Your task to perform on an android device: open the mobile data screen to see how much data has been used Image 0: 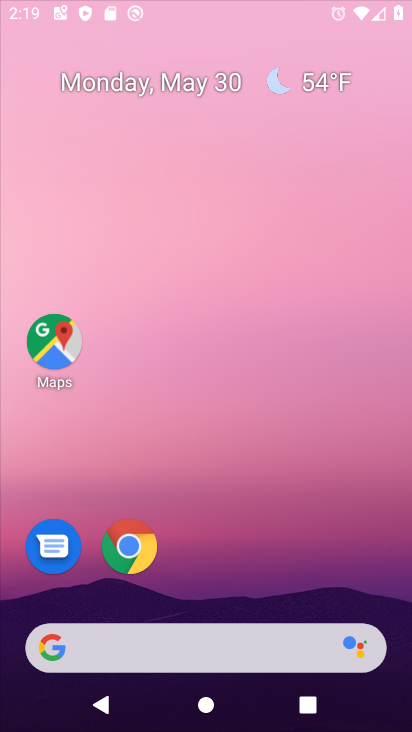
Step 0: press home button
Your task to perform on an android device: open the mobile data screen to see how much data has been used Image 1: 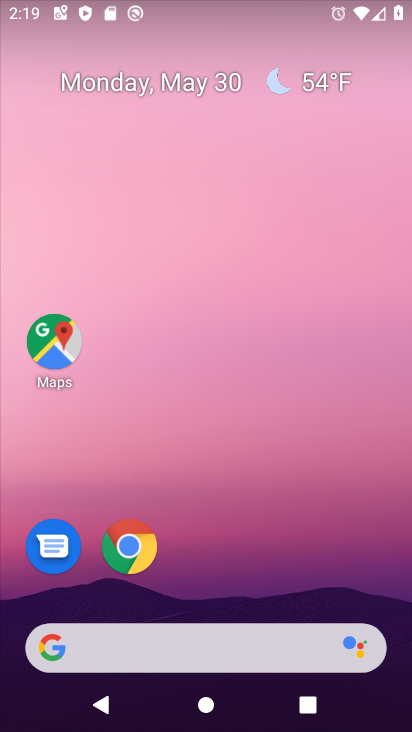
Step 1: drag from (214, 591) to (266, 107)
Your task to perform on an android device: open the mobile data screen to see how much data has been used Image 2: 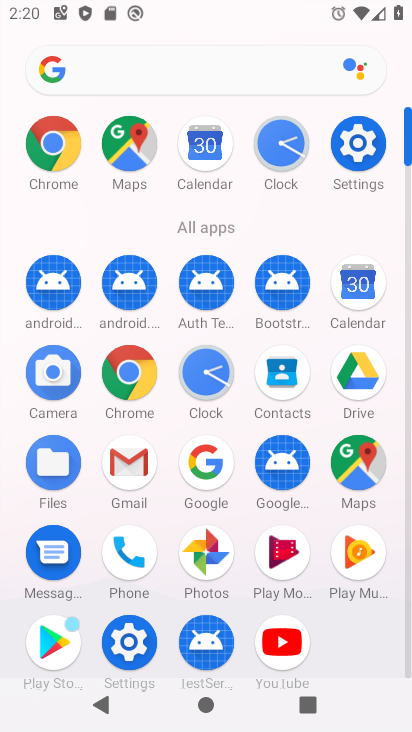
Step 2: click (356, 140)
Your task to perform on an android device: open the mobile data screen to see how much data has been used Image 3: 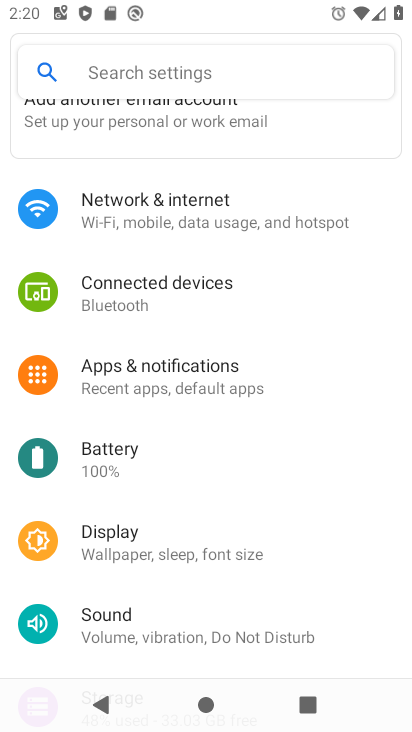
Step 3: click (191, 229)
Your task to perform on an android device: open the mobile data screen to see how much data has been used Image 4: 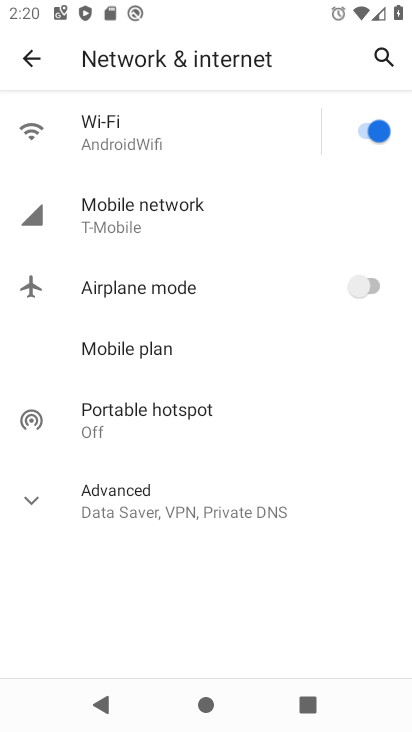
Step 4: click (171, 223)
Your task to perform on an android device: open the mobile data screen to see how much data has been used Image 5: 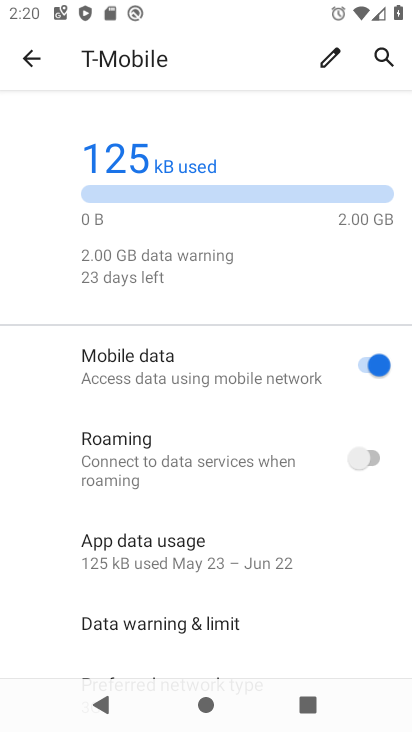
Step 5: click (226, 542)
Your task to perform on an android device: open the mobile data screen to see how much data has been used Image 6: 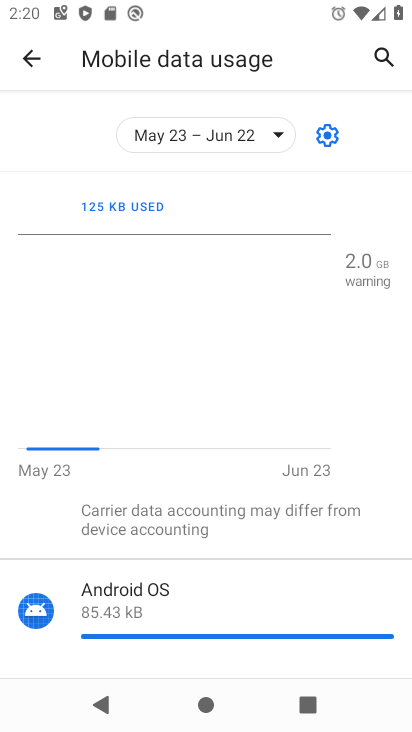
Step 6: task complete